Your task to perform on an android device: set an alarm Image 0: 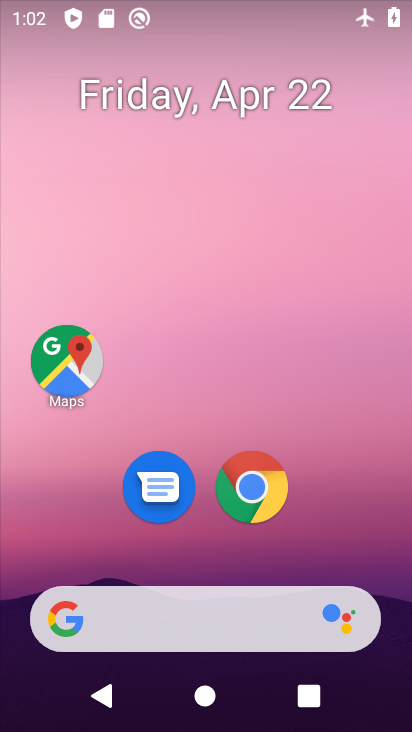
Step 0: drag from (204, 529) to (204, 156)
Your task to perform on an android device: set an alarm Image 1: 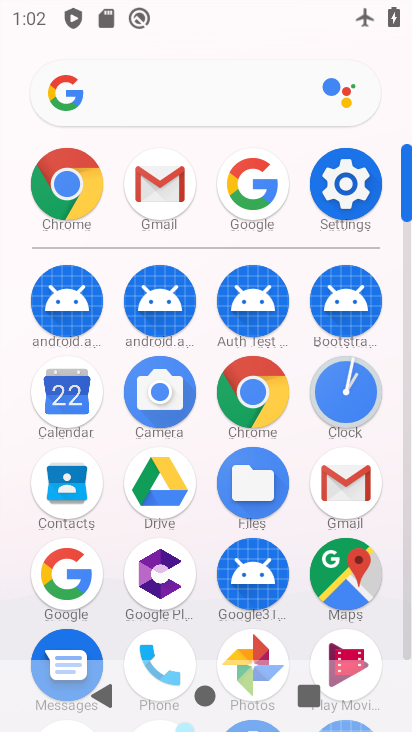
Step 1: click (330, 383)
Your task to perform on an android device: set an alarm Image 2: 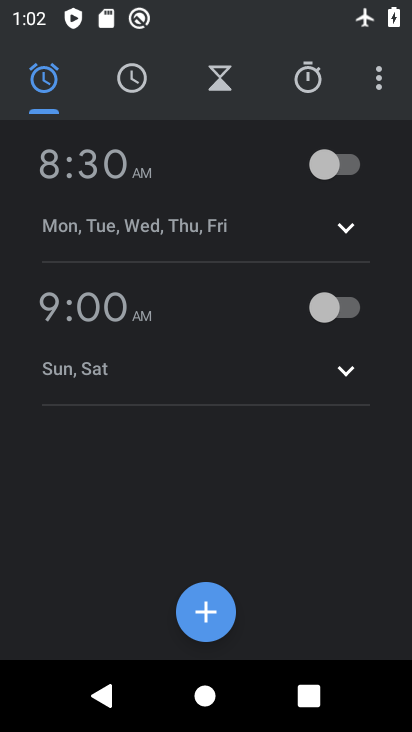
Step 2: click (347, 160)
Your task to perform on an android device: set an alarm Image 3: 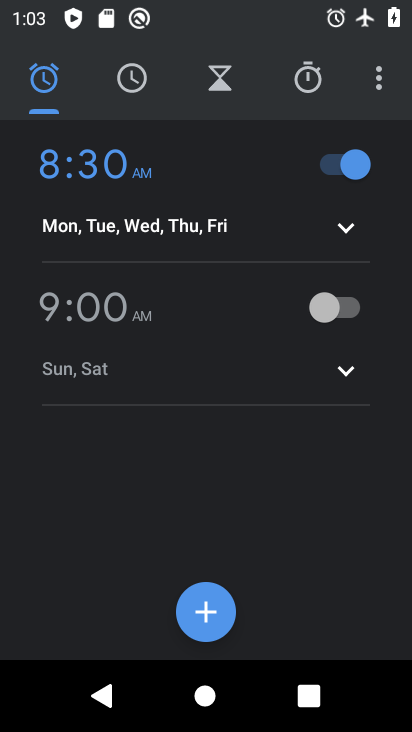
Step 3: task complete